Your task to perform on an android device: Show me recent news Image 0: 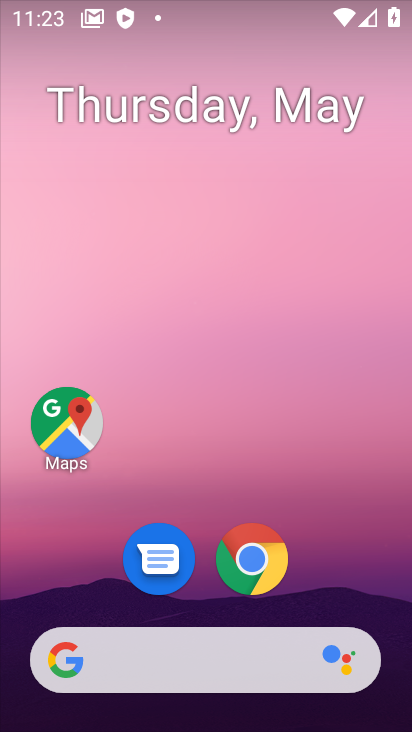
Step 0: drag from (1, 275) to (388, 247)
Your task to perform on an android device: Show me recent news Image 1: 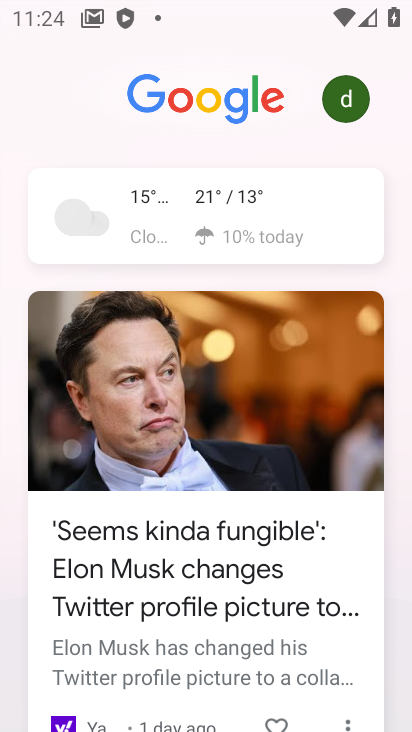
Step 1: task complete